Your task to perform on an android device: Open Wikipedia Image 0: 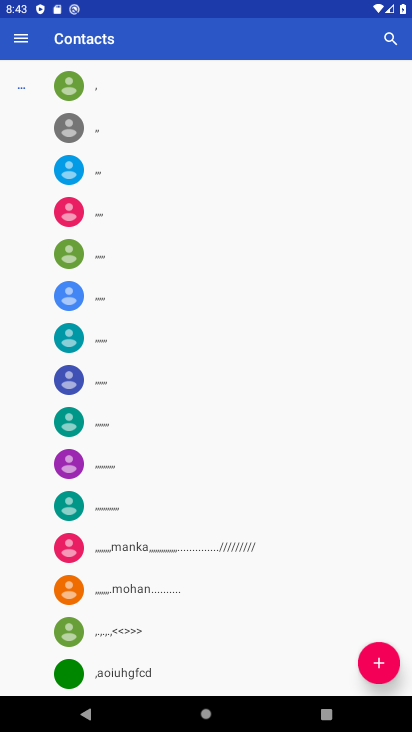
Step 0: press home button
Your task to perform on an android device: Open Wikipedia Image 1: 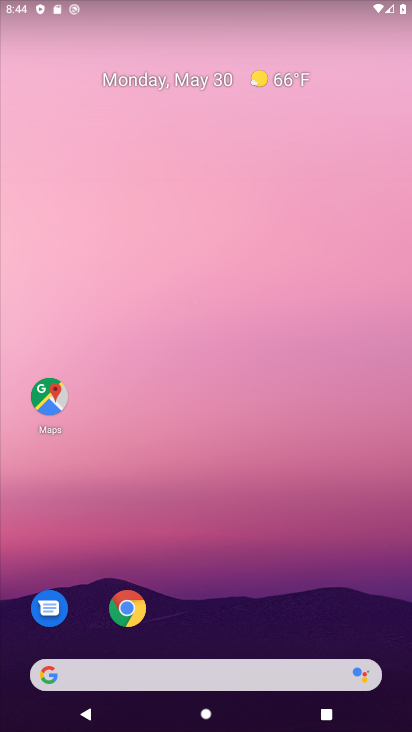
Step 1: click (128, 612)
Your task to perform on an android device: Open Wikipedia Image 2: 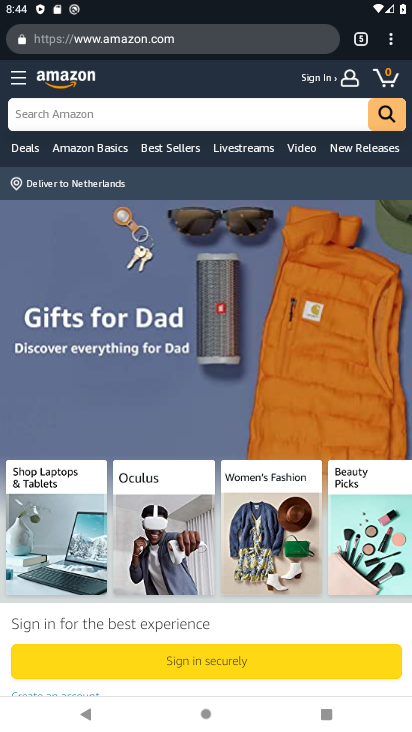
Step 2: click (393, 44)
Your task to perform on an android device: Open Wikipedia Image 3: 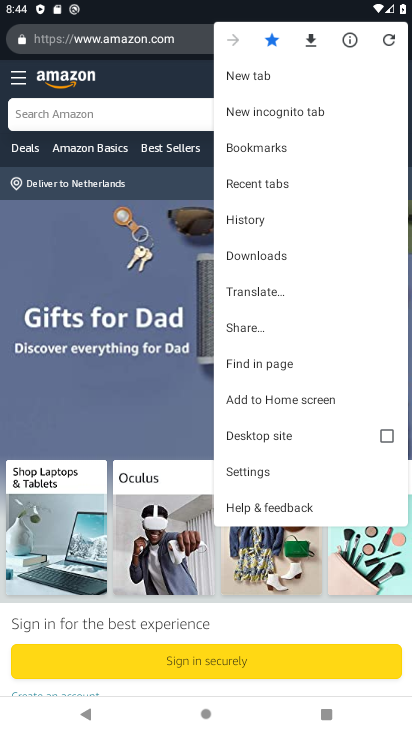
Step 3: click (255, 74)
Your task to perform on an android device: Open Wikipedia Image 4: 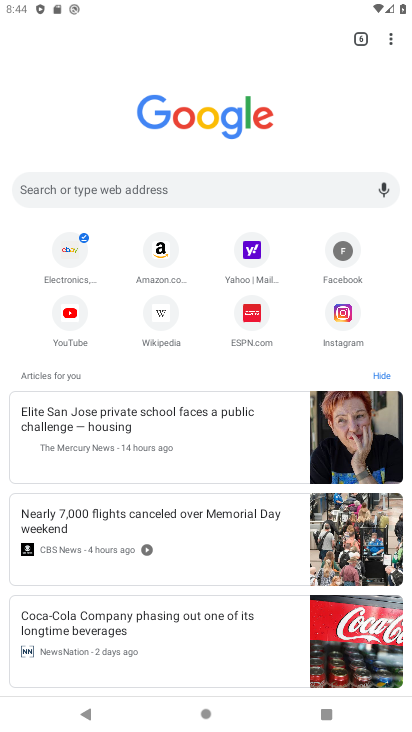
Step 4: click (153, 309)
Your task to perform on an android device: Open Wikipedia Image 5: 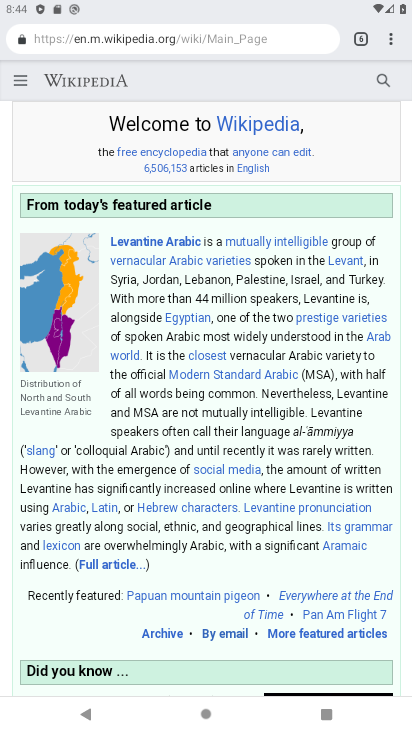
Step 5: task complete